Your task to perform on an android device: Open battery settings Image 0: 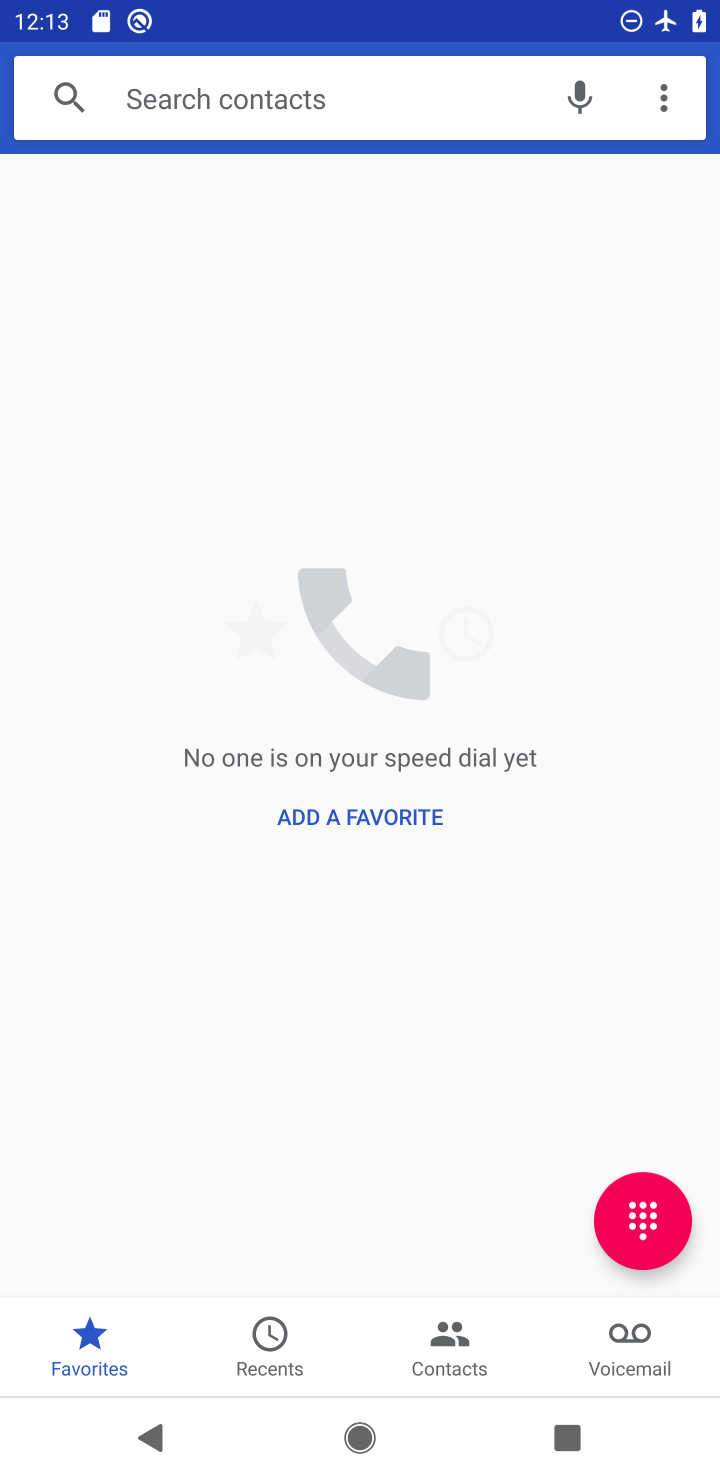
Step 0: press home button
Your task to perform on an android device: Open battery settings Image 1: 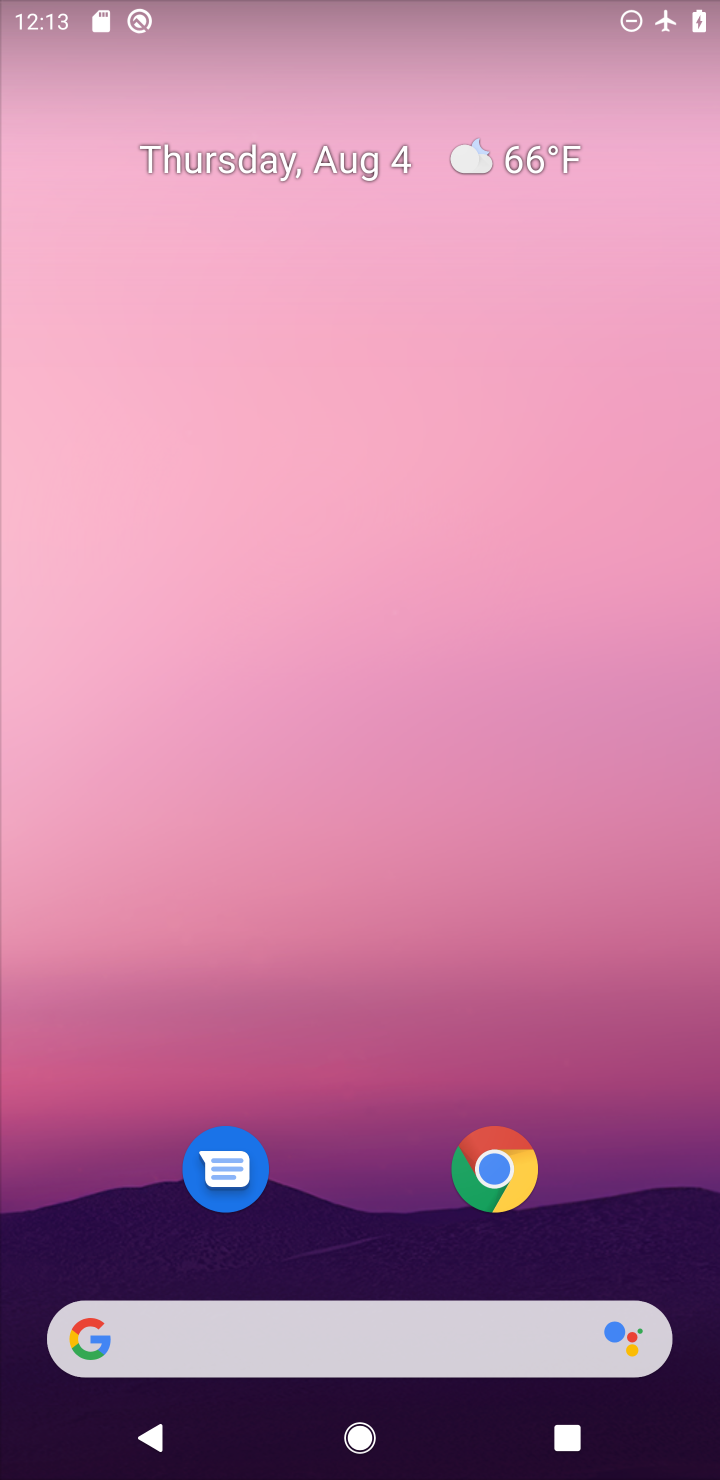
Step 1: drag from (367, 1174) to (380, 48)
Your task to perform on an android device: Open battery settings Image 2: 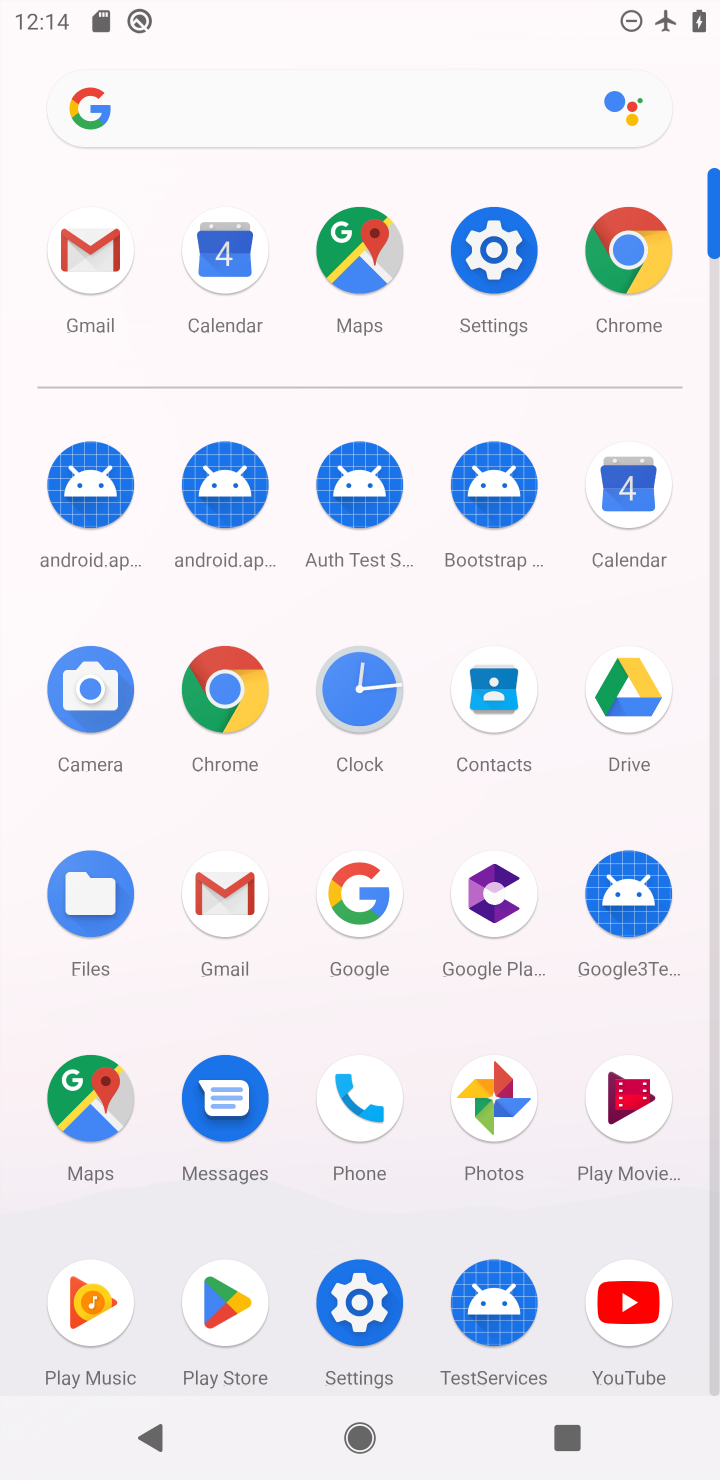
Step 2: click (496, 256)
Your task to perform on an android device: Open battery settings Image 3: 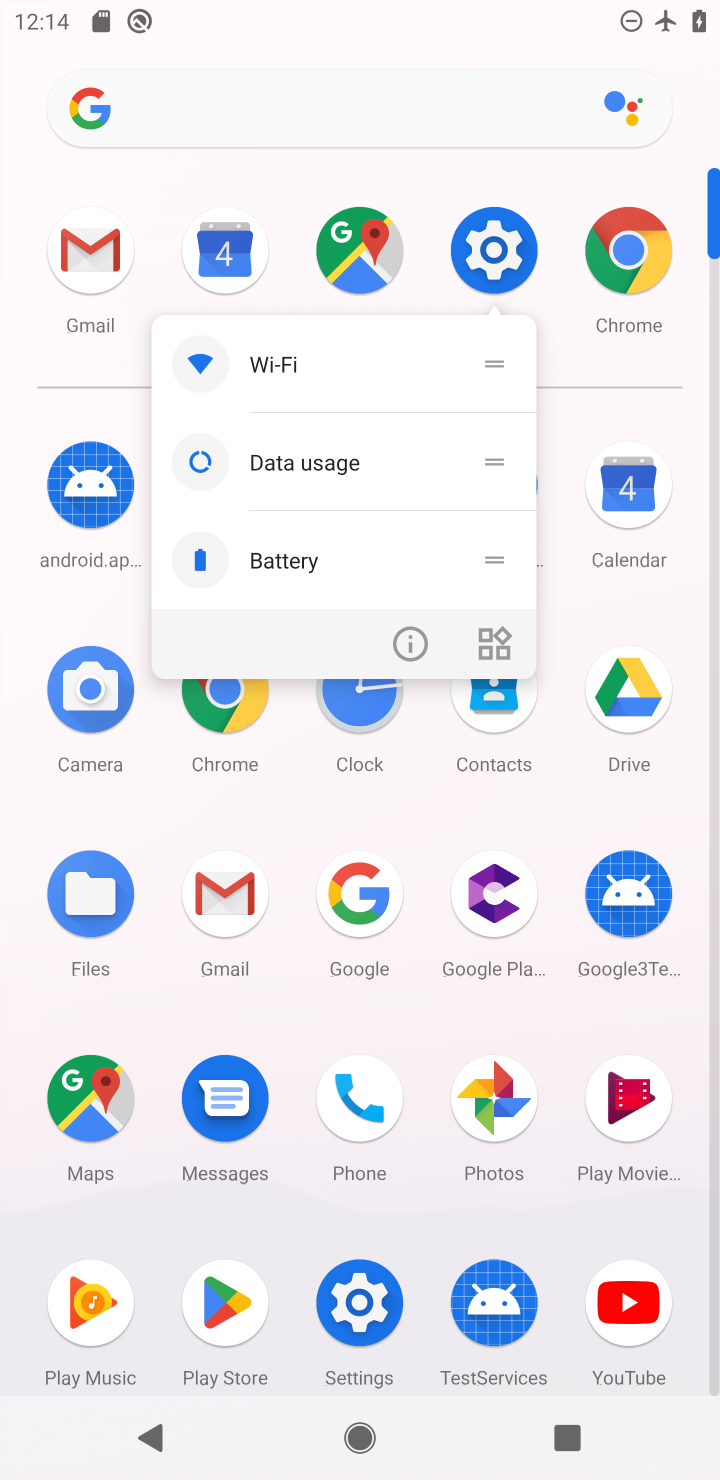
Step 3: click (496, 256)
Your task to perform on an android device: Open battery settings Image 4: 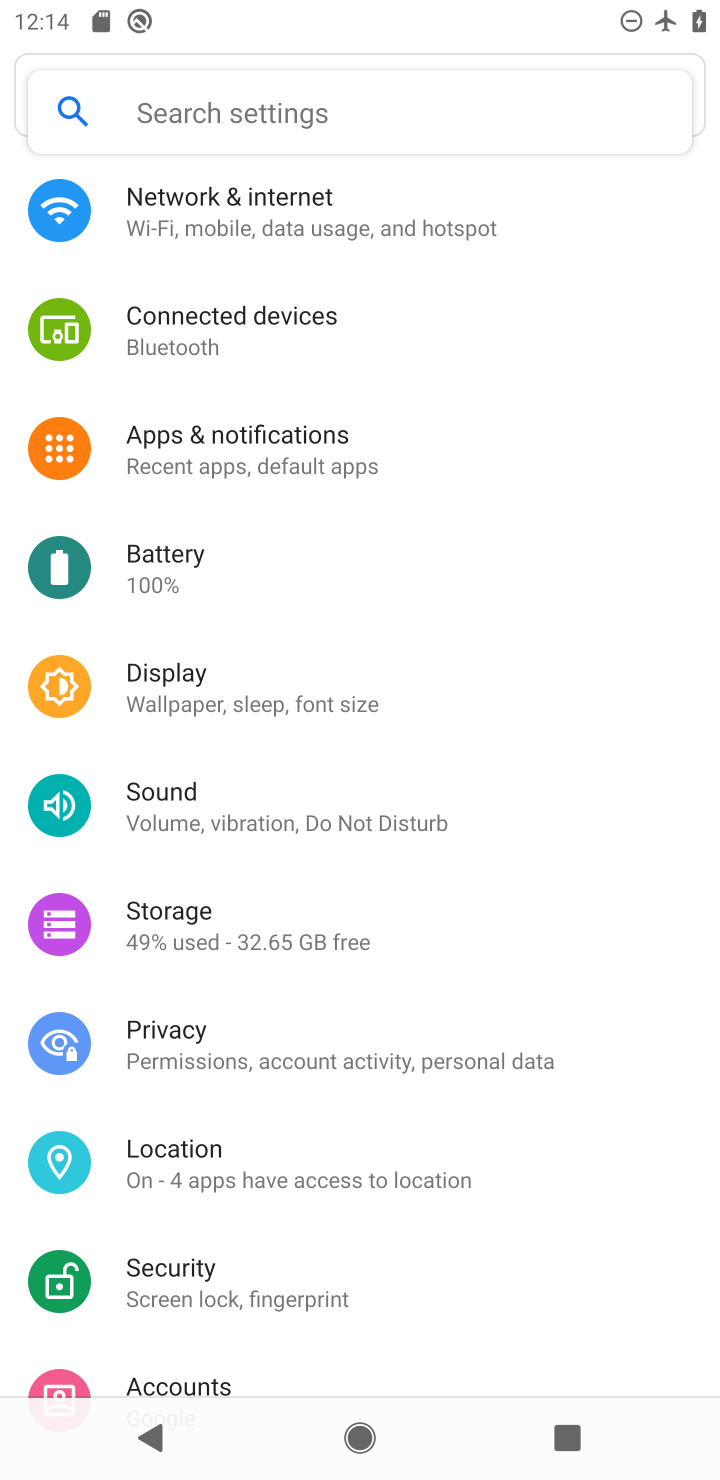
Step 4: click (147, 568)
Your task to perform on an android device: Open battery settings Image 5: 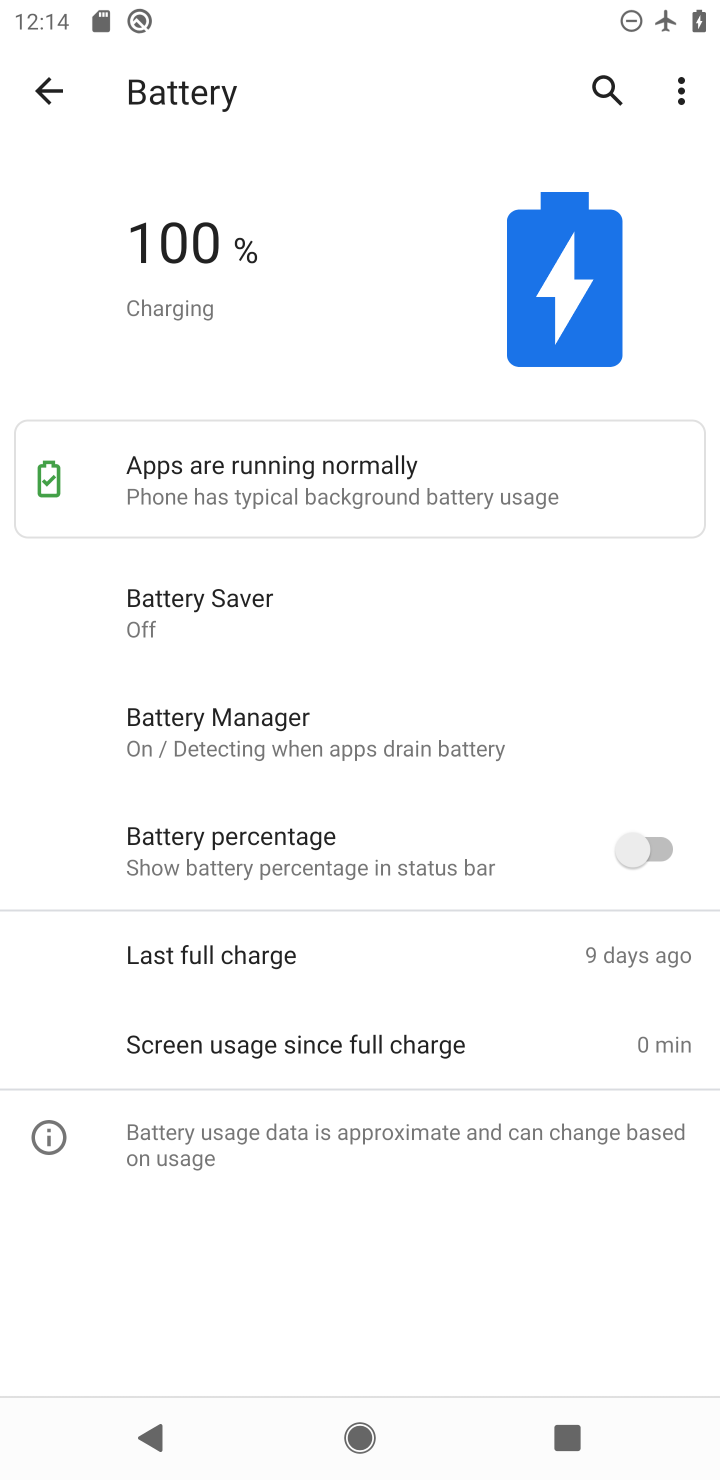
Step 5: task complete